Your task to perform on an android device: Check the new Jordans on Nike. Image 0: 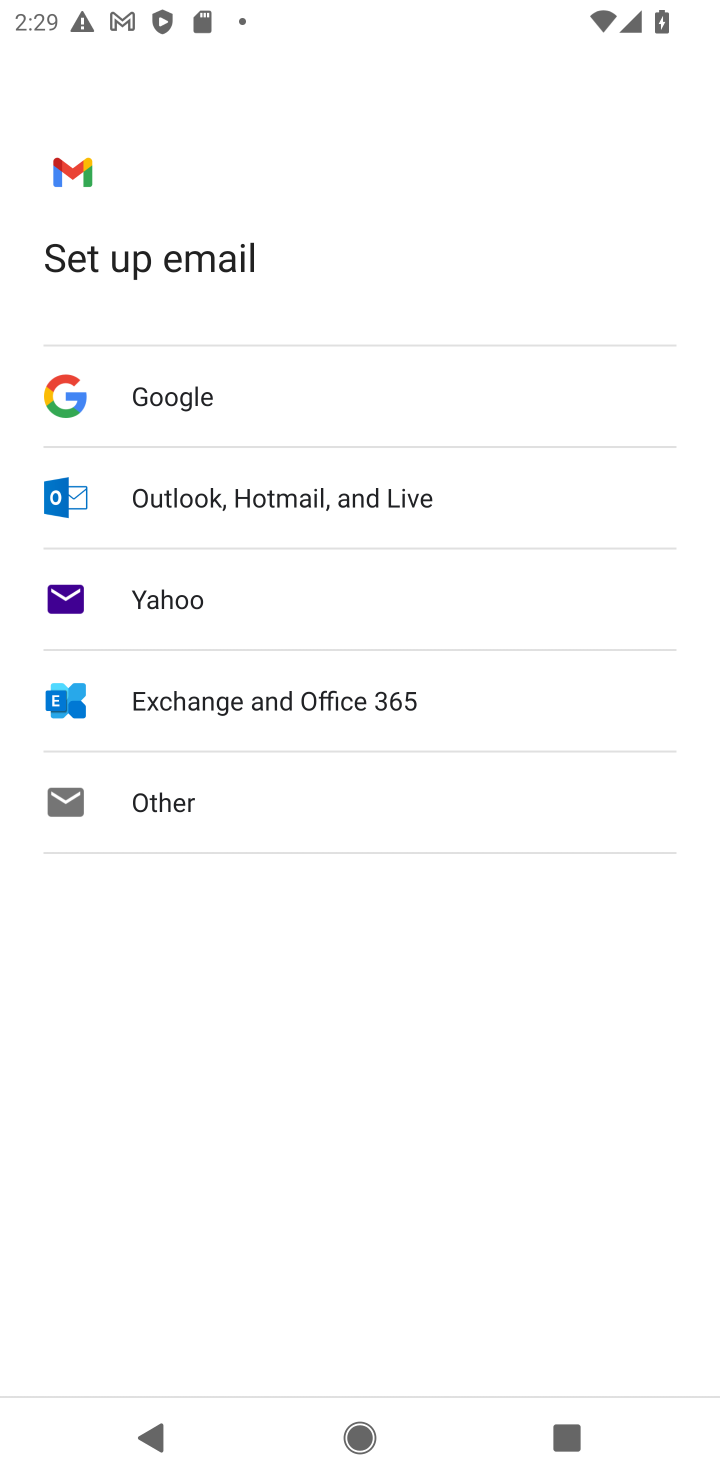
Step 0: press home button
Your task to perform on an android device: Check the new Jordans on Nike. Image 1: 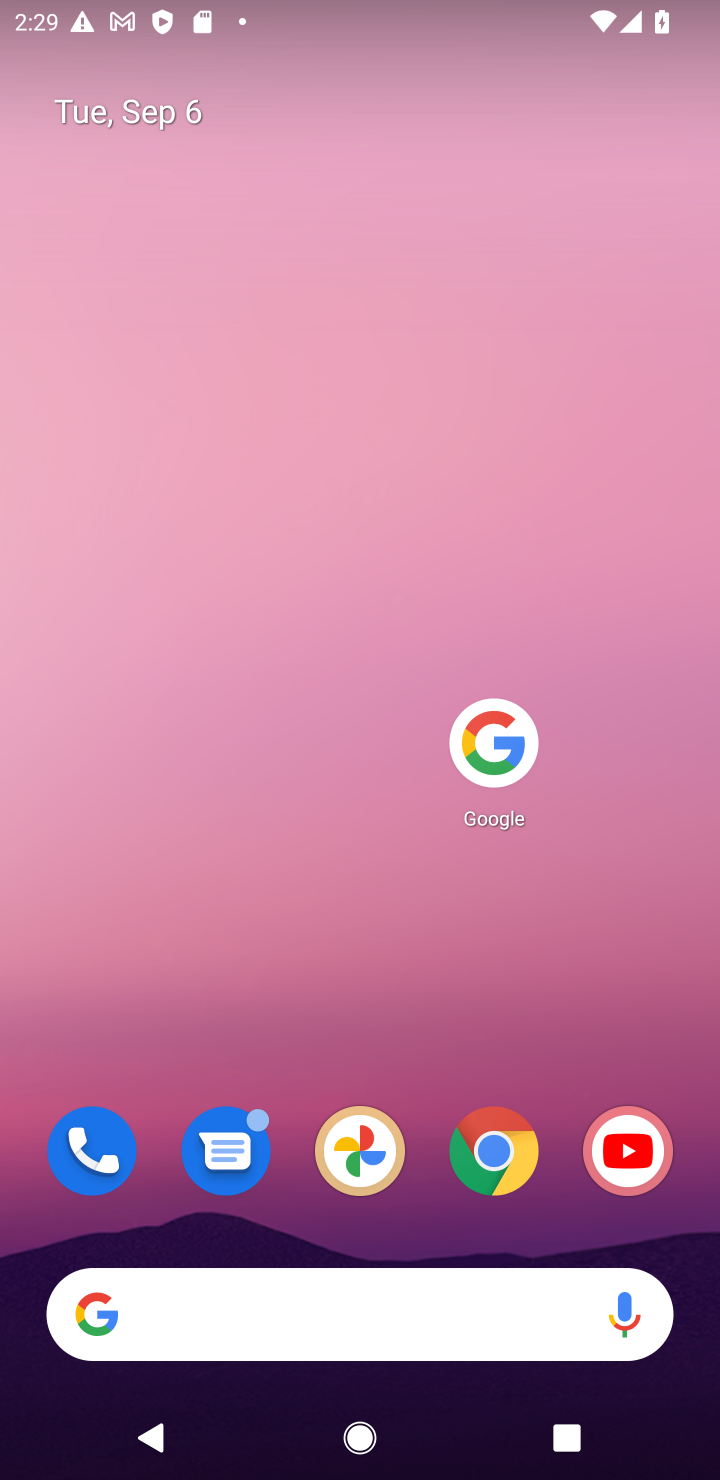
Step 1: click (515, 727)
Your task to perform on an android device: Check the new Jordans on Nike. Image 2: 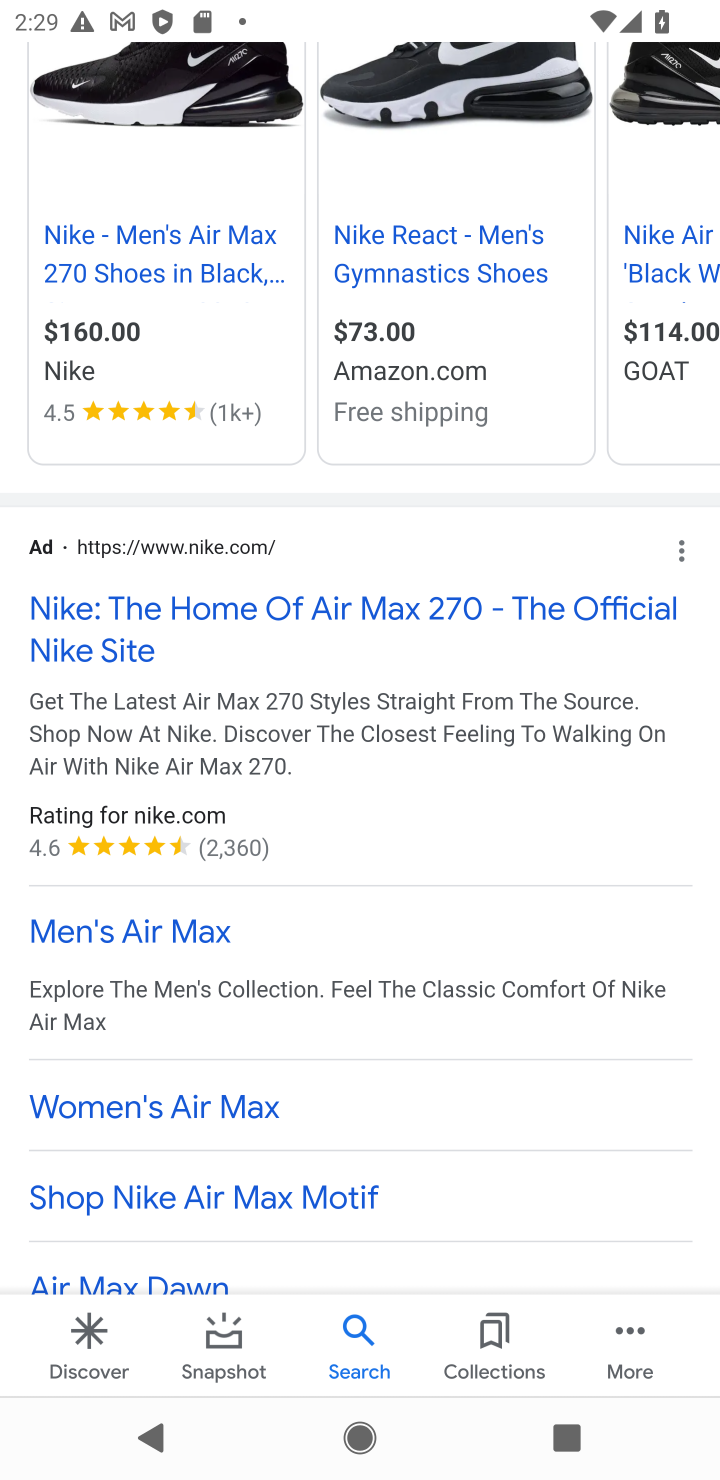
Step 2: drag from (304, 703) to (304, 1070)
Your task to perform on an android device: Check the new Jordans on Nike. Image 3: 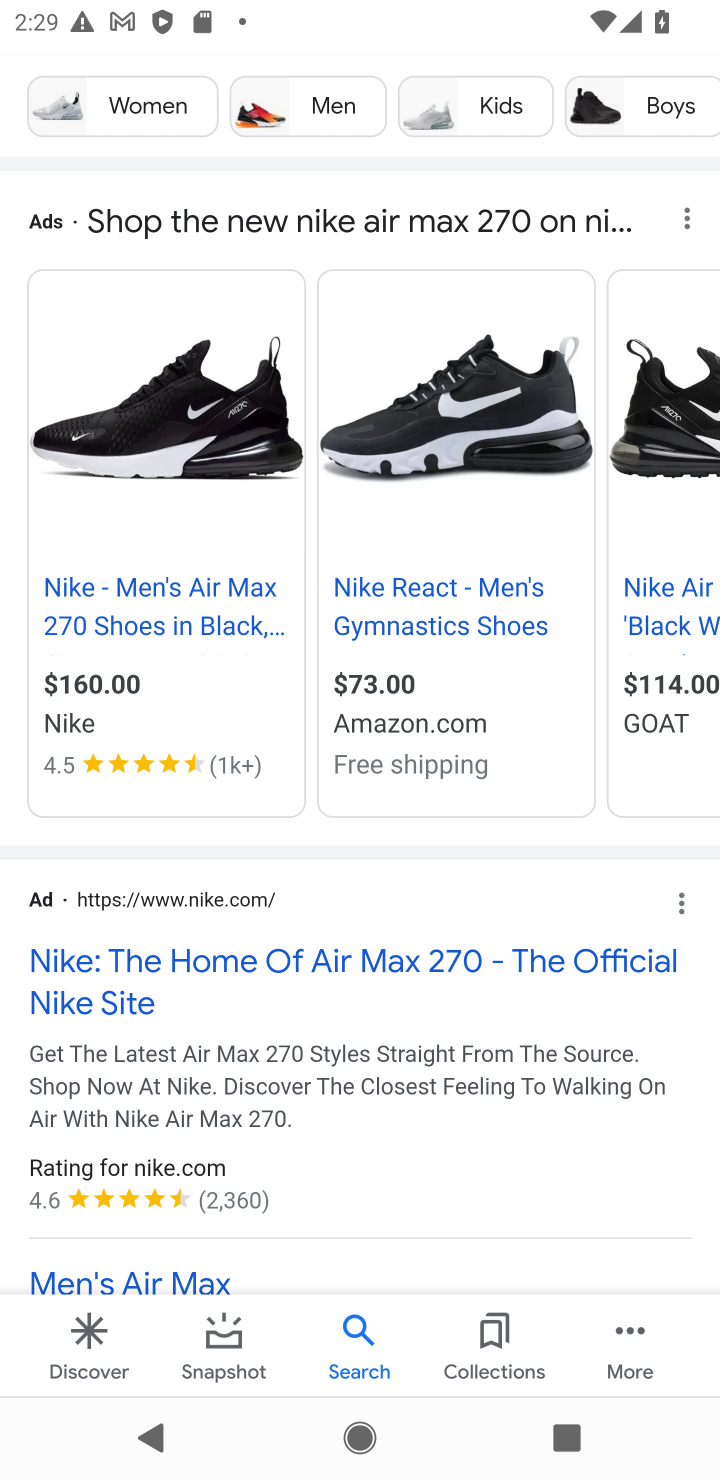
Step 3: drag from (514, 234) to (394, 1223)
Your task to perform on an android device: Check the new Jordans on Nike. Image 4: 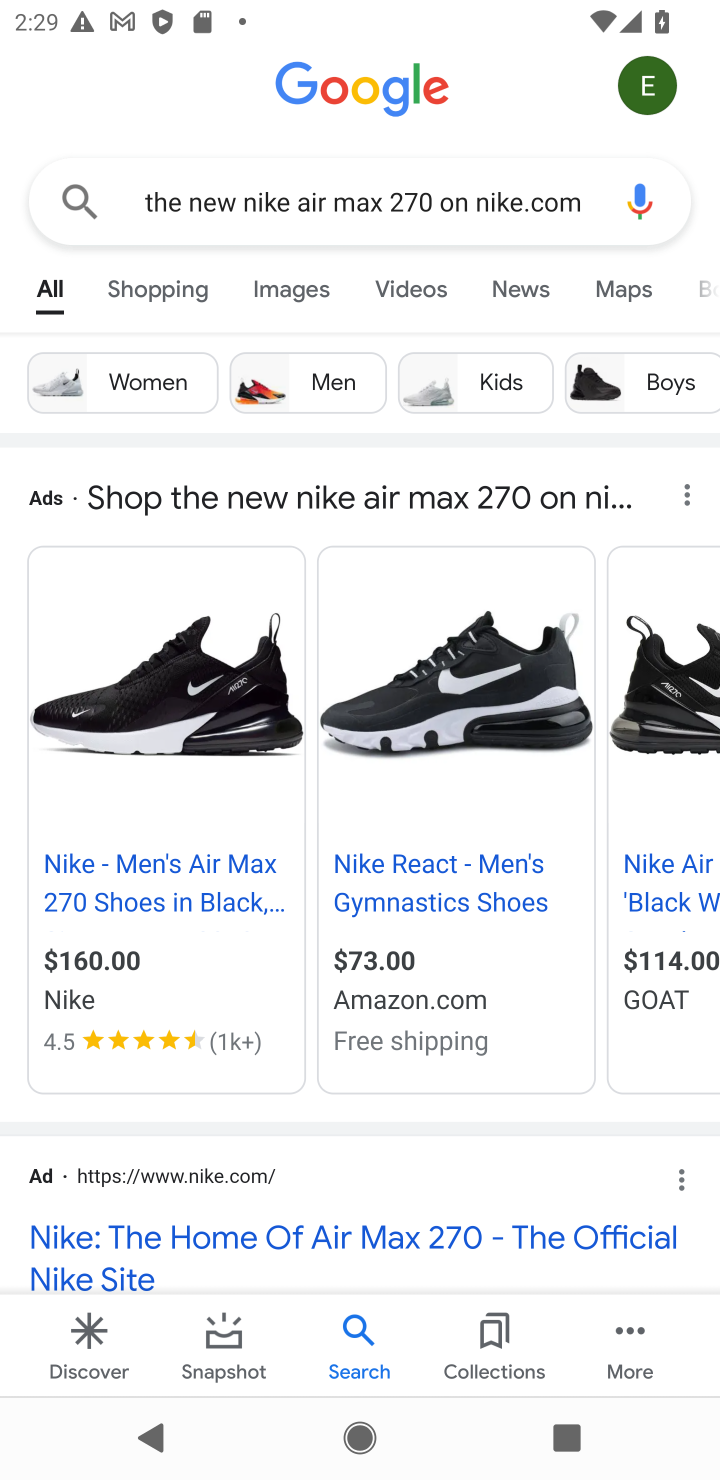
Step 4: click (367, 185)
Your task to perform on an android device: Check the new Jordans on Nike. Image 5: 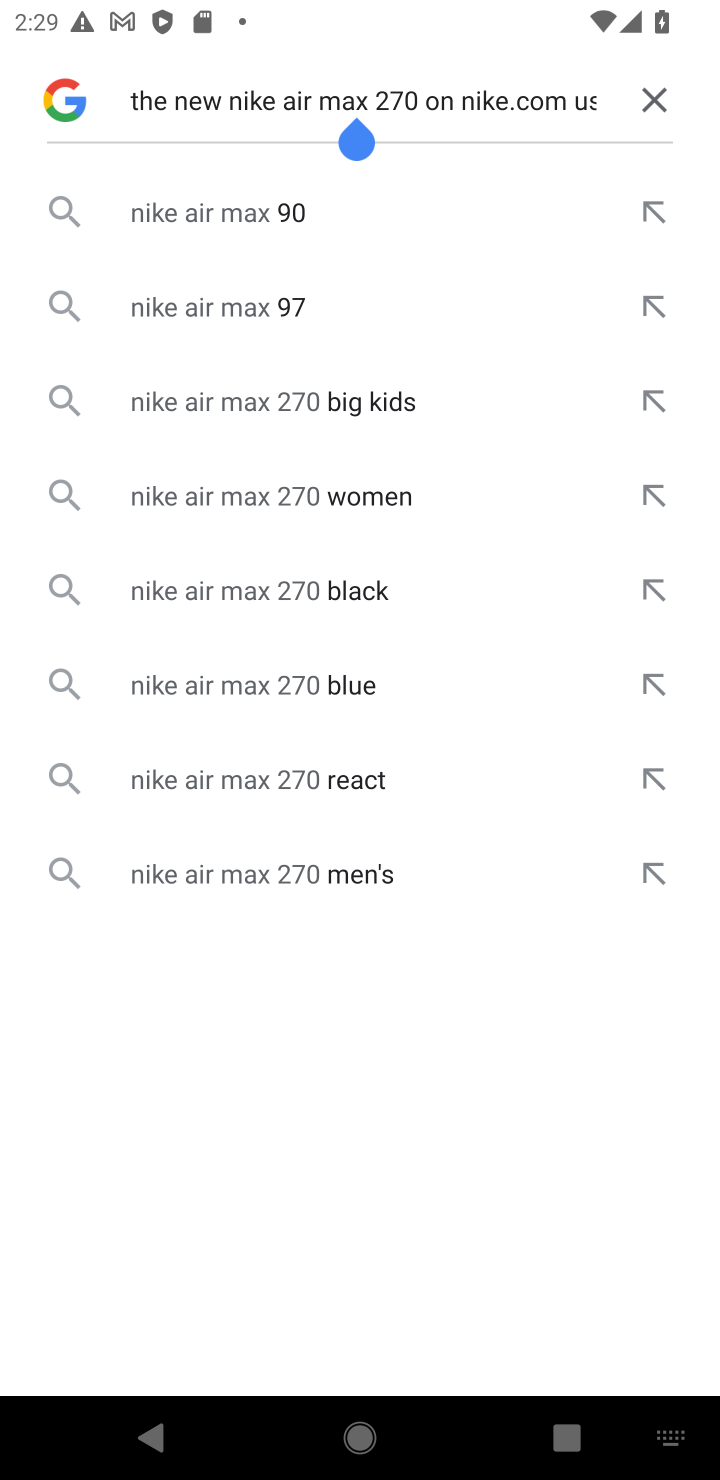
Step 5: click (652, 89)
Your task to perform on an android device: Check the new Jordans on Nike. Image 6: 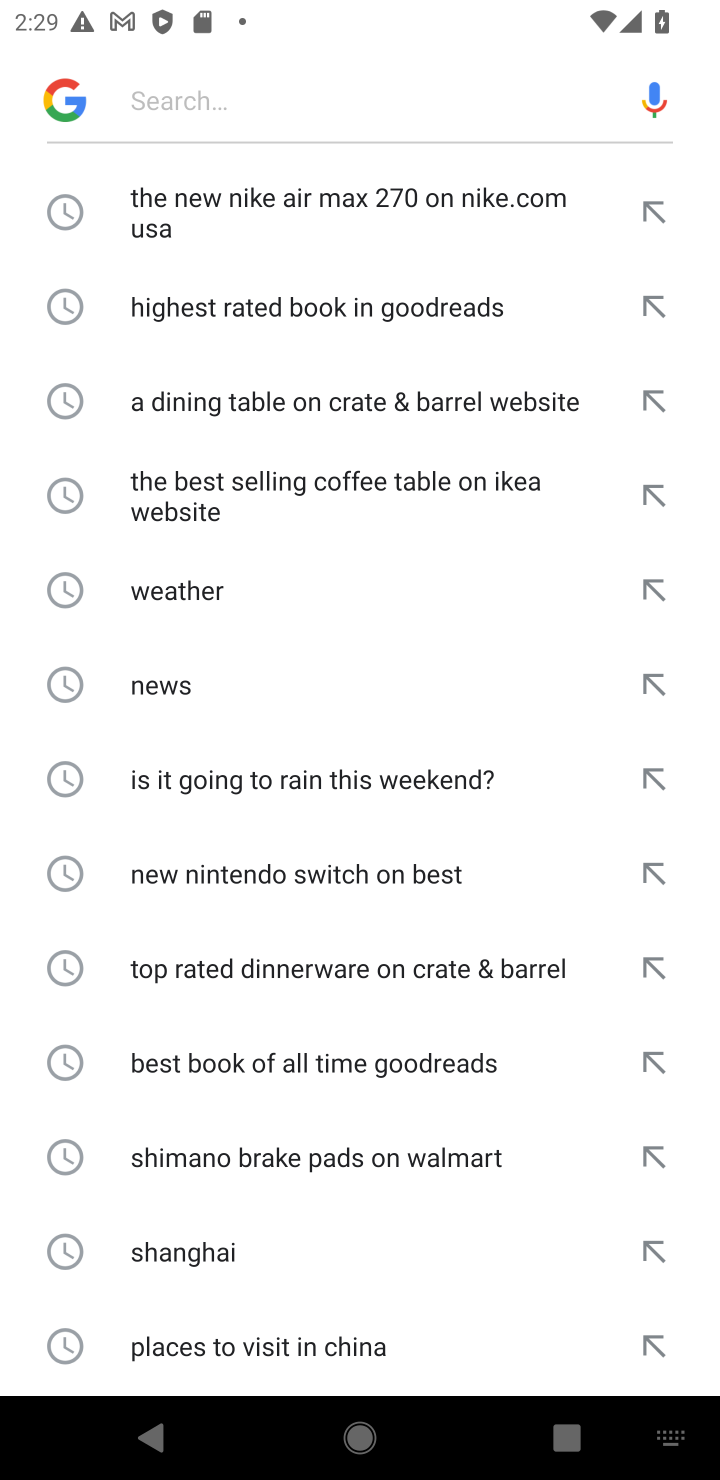
Step 6: click (267, 58)
Your task to perform on an android device: Check the new Jordans on Nike. Image 7: 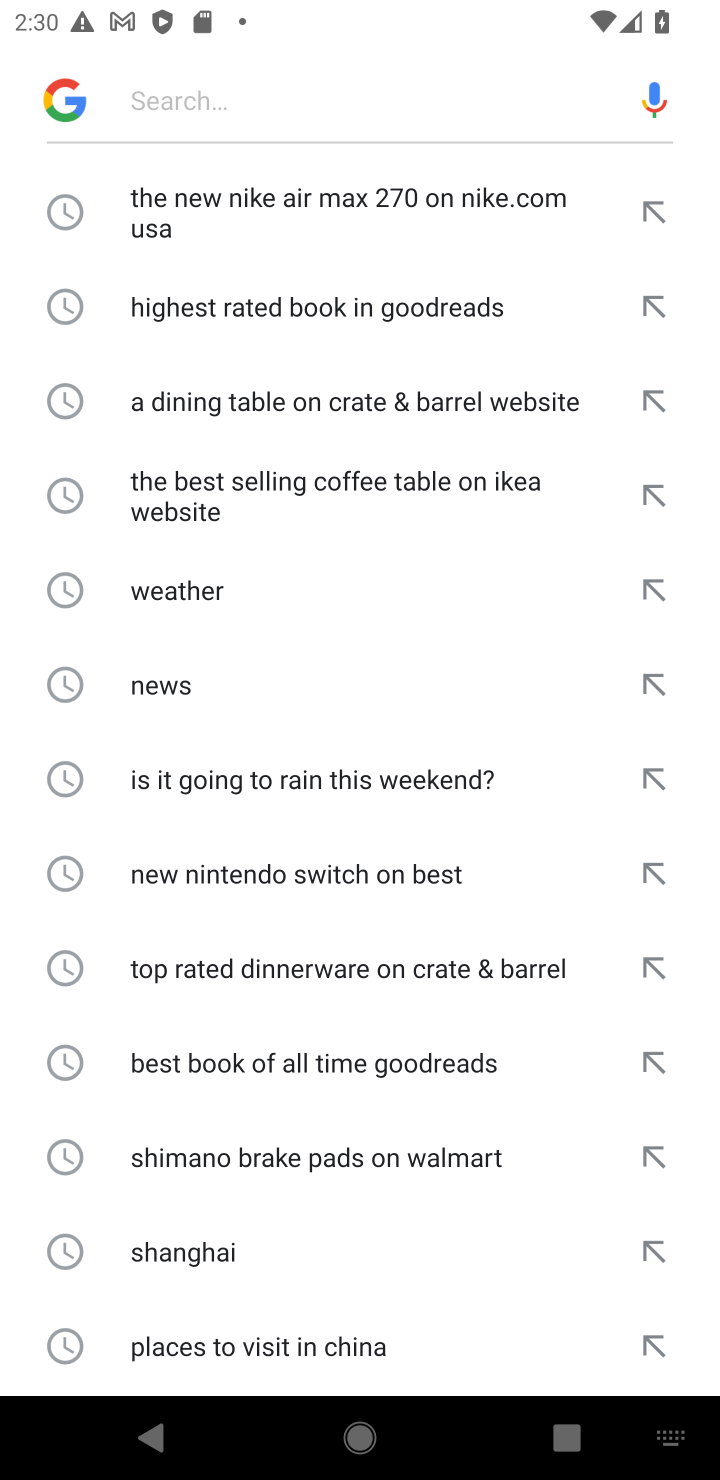
Step 7: type "the new Jordans on Nike "
Your task to perform on an android device: Check the new Jordans on Nike. Image 8: 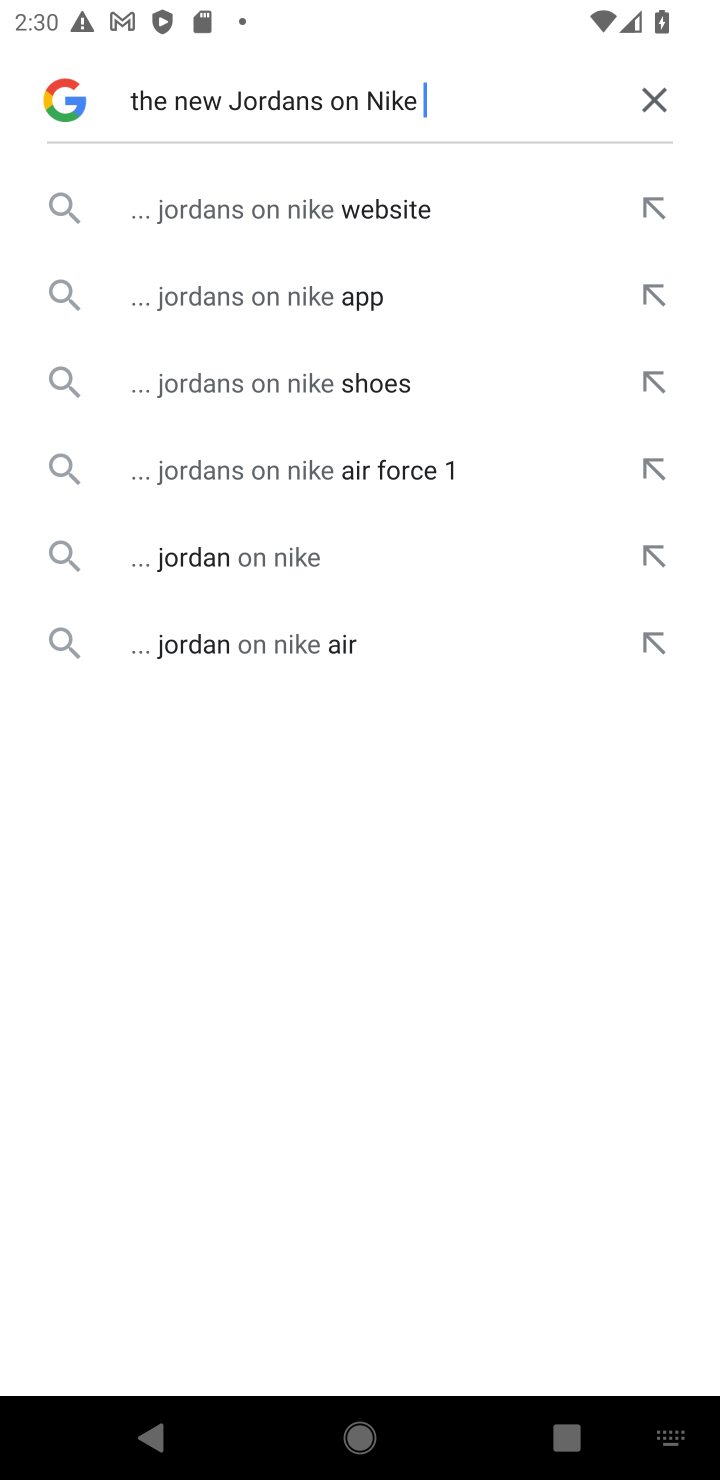
Step 8: click (374, 214)
Your task to perform on an android device: Check the new Jordans on Nike. Image 9: 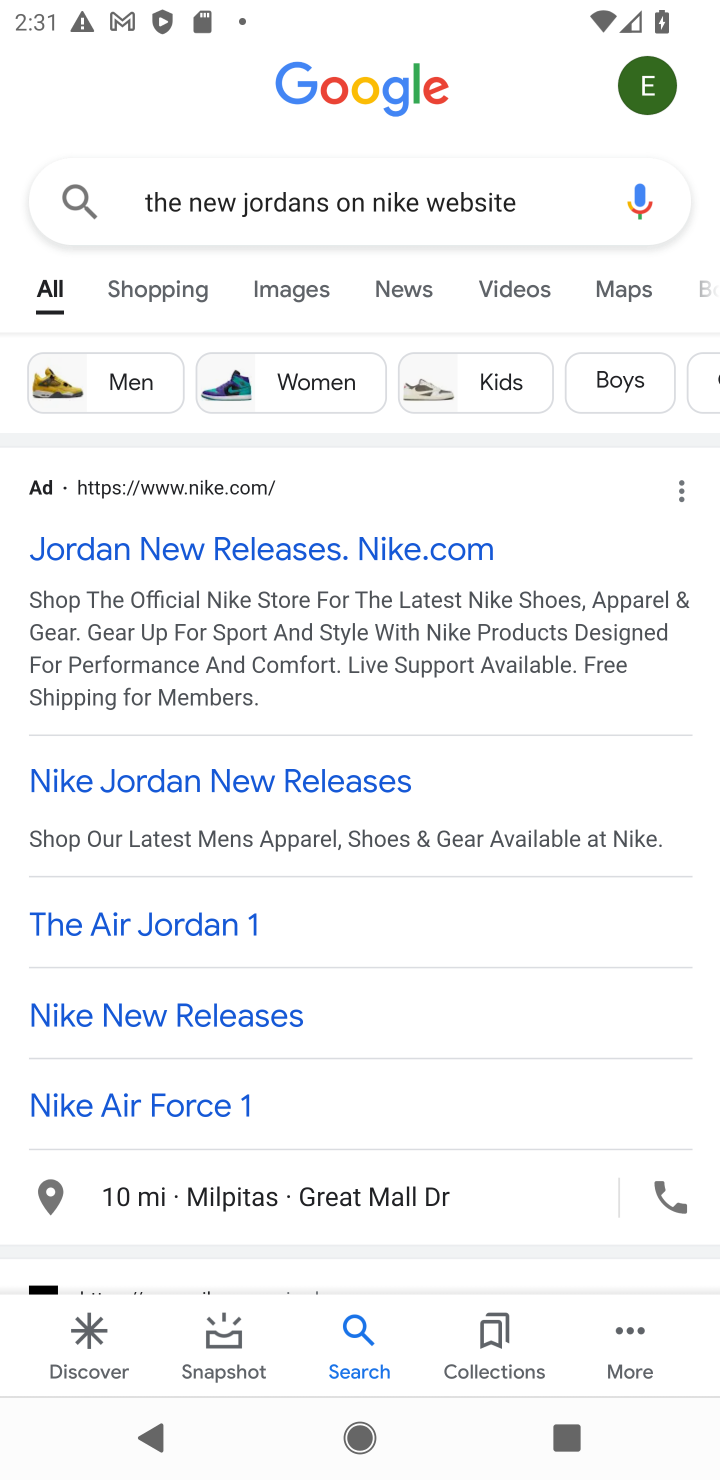
Step 9: task complete